Your task to perform on an android device: set an alarm Image 0: 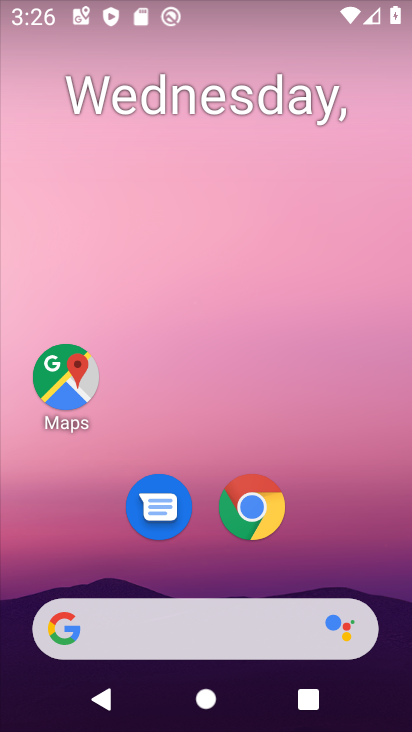
Step 0: drag from (314, 563) to (235, 17)
Your task to perform on an android device: set an alarm Image 1: 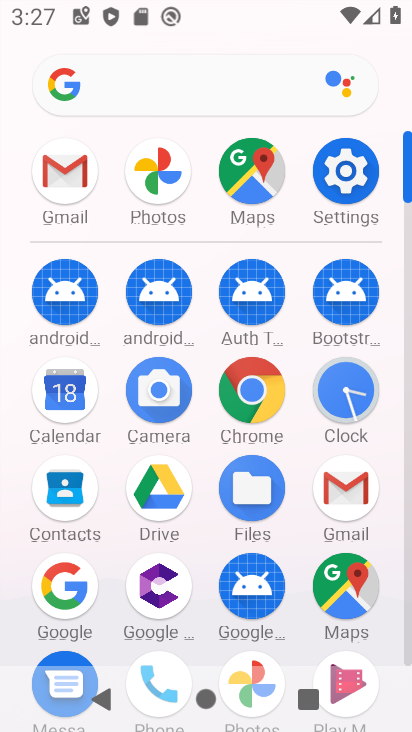
Step 1: click (326, 404)
Your task to perform on an android device: set an alarm Image 2: 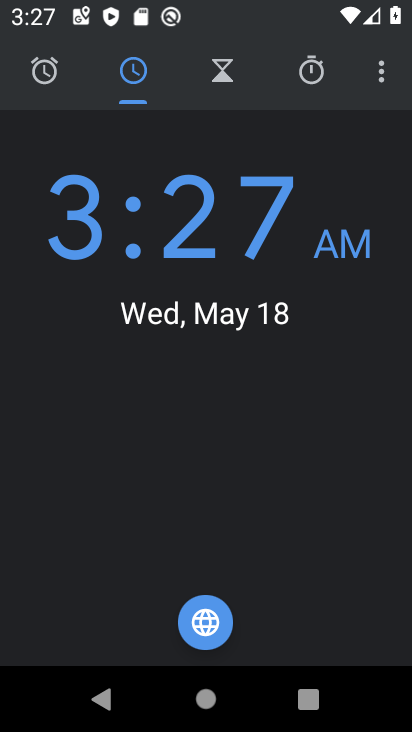
Step 2: click (66, 76)
Your task to perform on an android device: set an alarm Image 3: 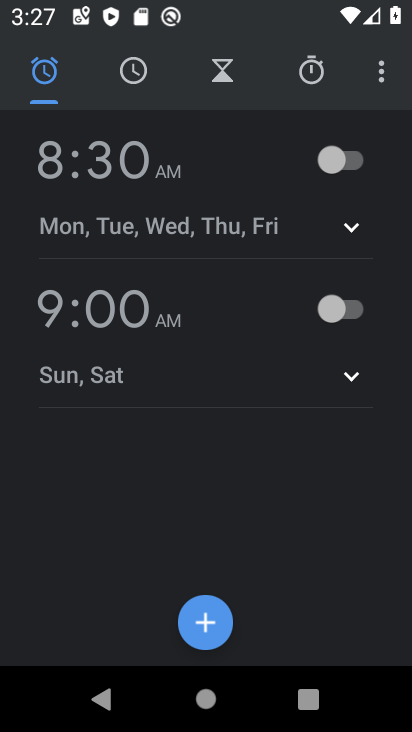
Step 3: click (325, 305)
Your task to perform on an android device: set an alarm Image 4: 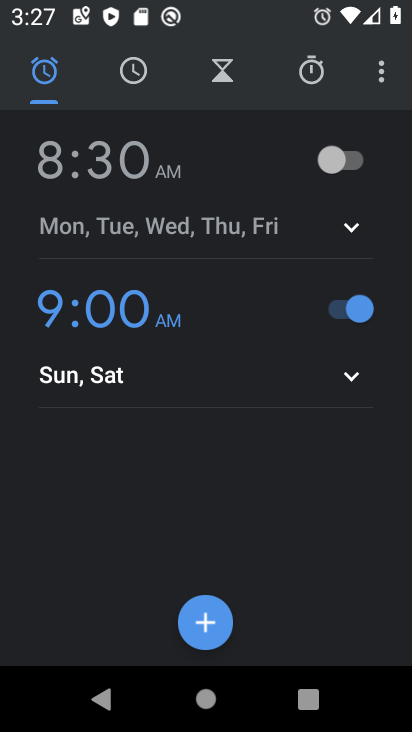
Step 4: task complete